Your task to perform on an android device: Search for pizza restaurants on Maps Image 0: 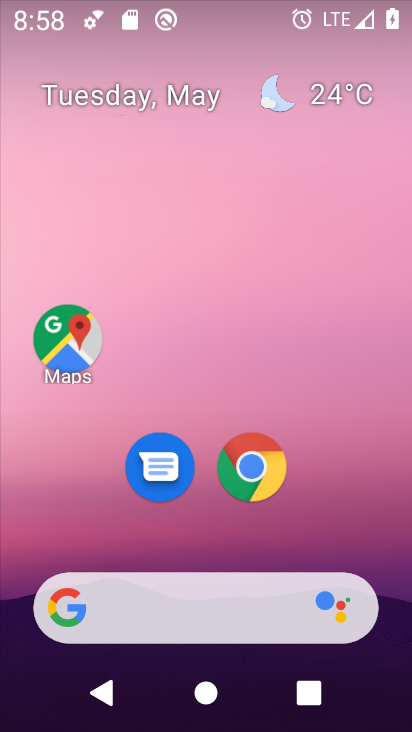
Step 0: click (410, 423)
Your task to perform on an android device: Search for pizza restaurants on Maps Image 1: 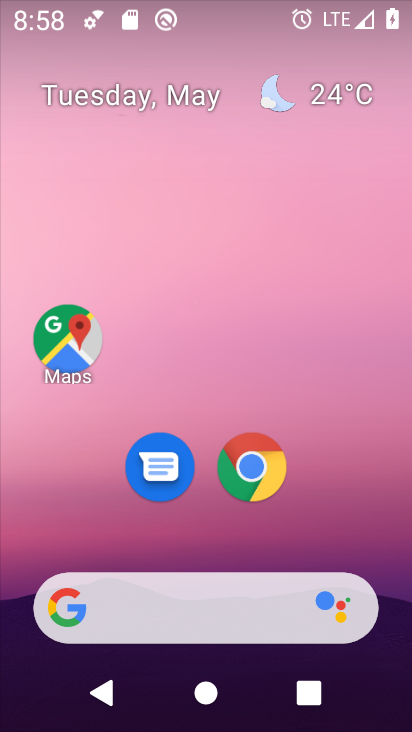
Step 1: click (46, 329)
Your task to perform on an android device: Search for pizza restaurants on Maps Image 2: 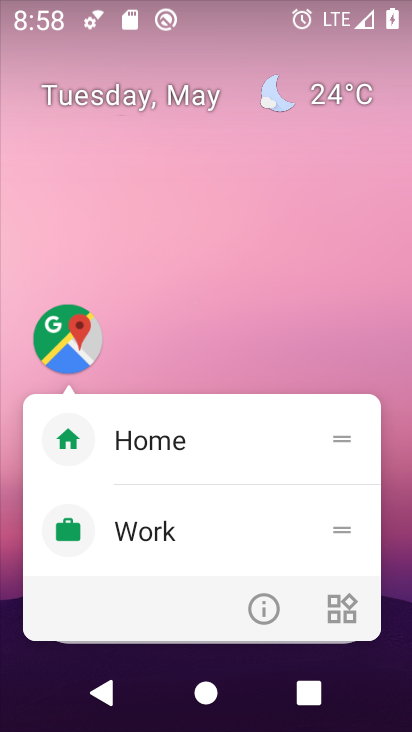
Step 2: click (68, 329)
Your task to perform on an android device: Search for pizza restaurants on Maps Image 3: 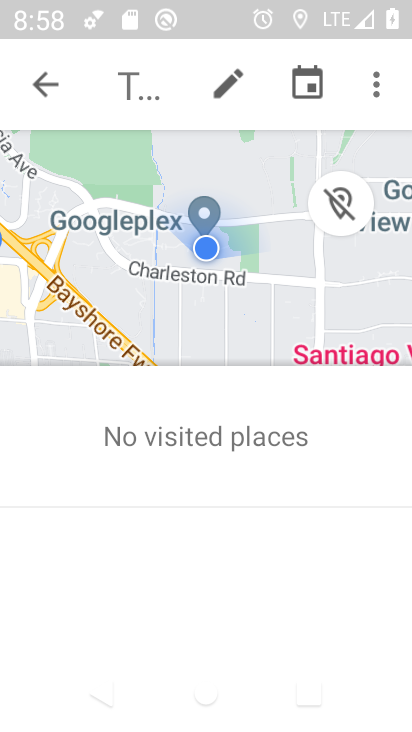
Step 3: click (32, 75)
Your task to perform on an android device: Search for pizza restaurants on Maps Image 4: 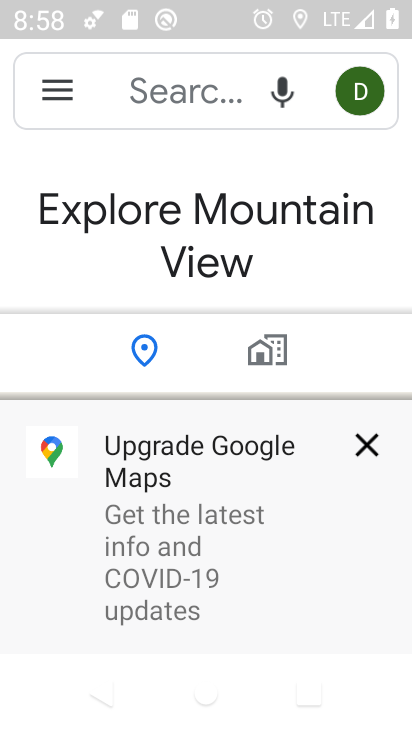
Step 4: click (108, 88)
Your task to perform on an android device: Search for pizza restaurants on Maps Image 5: 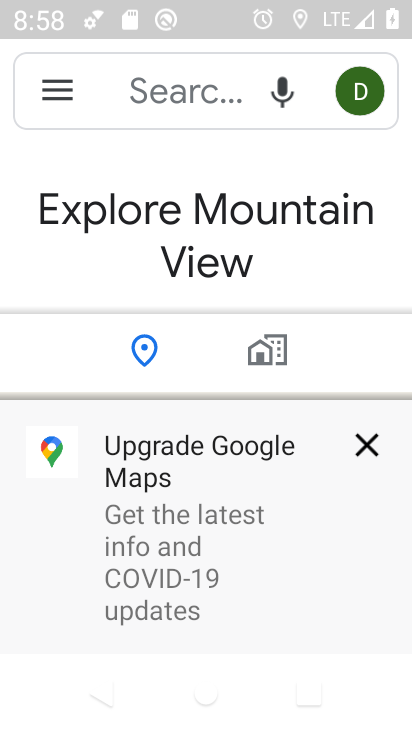
Step 5: click (362, 445)
Your task to perform on an android device: Search for pizza restaurants on Maps Image 6: 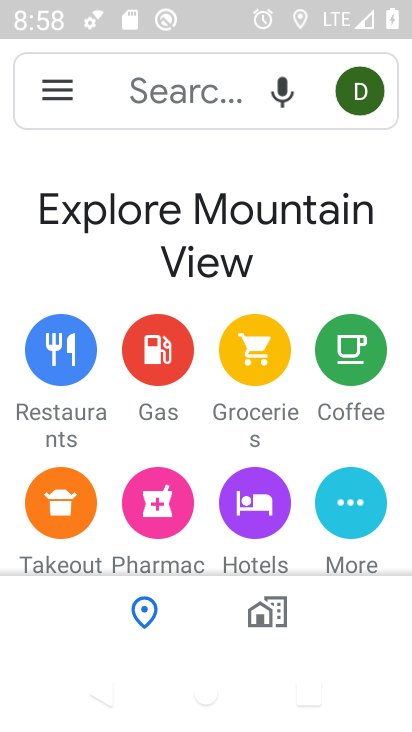
Step 6: click (129, 86)
Your task to perform on an android device: Search for pizza restaurants on Maps Image 7: 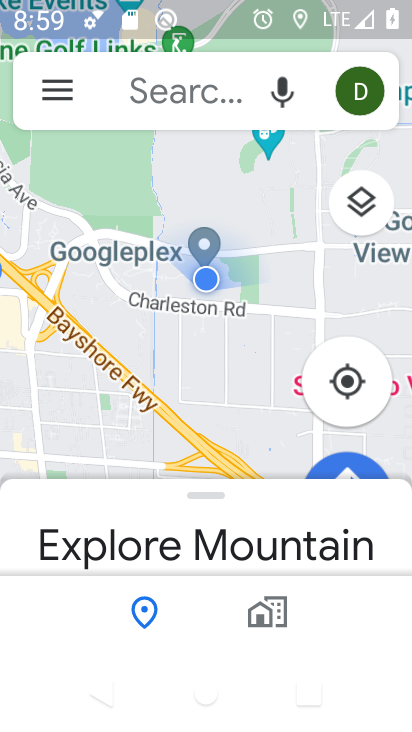
Step 7: click (111, 89)
Your task to perform on an android device: Search for pizza restaurants on Maps Image 8: 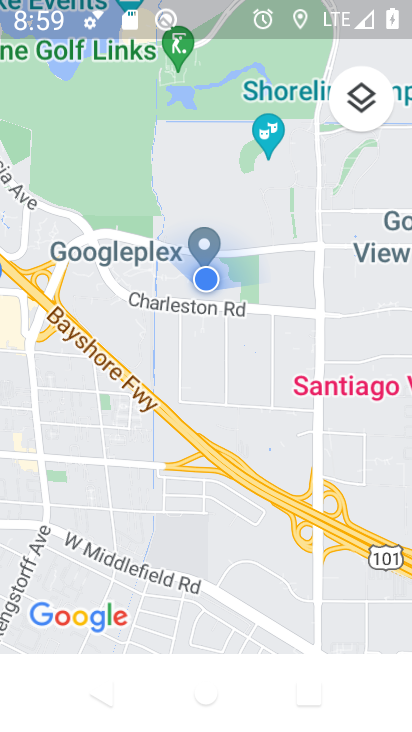
Step 8: press back button
Your task to perform on an android device: Search for pizza restaurants on Maps Image 9: 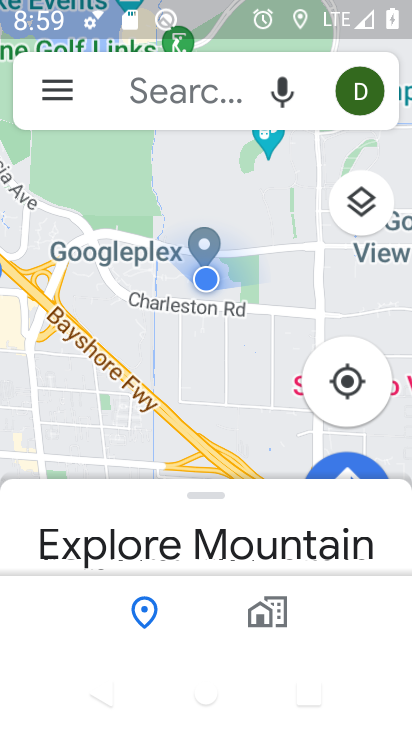
Step 9: click (142, 85)
Your task to perform on an android device: Search for pizza restaurants on Maps Image 10: 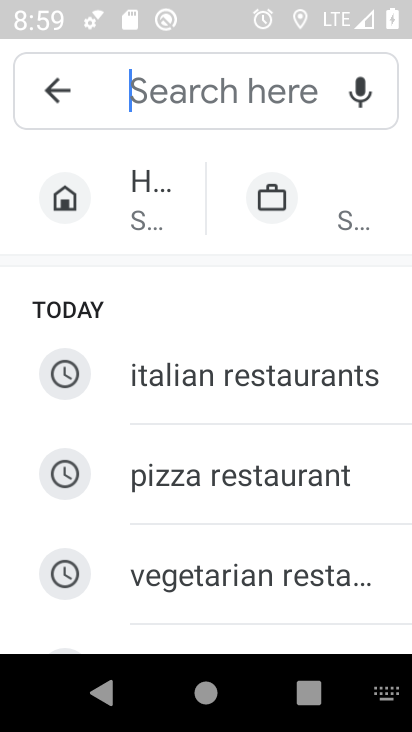
Step 10: type "pizza restaurants"
Your task to perform on an android device: Search for pizza restaurants on Maps Image 11: 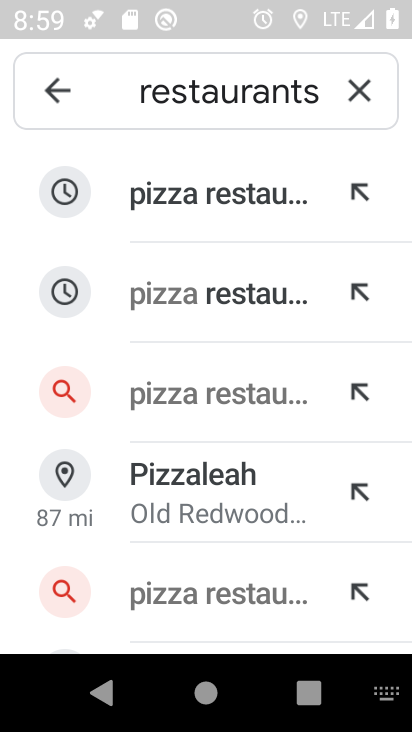
Step 11: click (200, 384)
Your task to perform on an android device: Search for pizza restaurants on Maps Image 12: 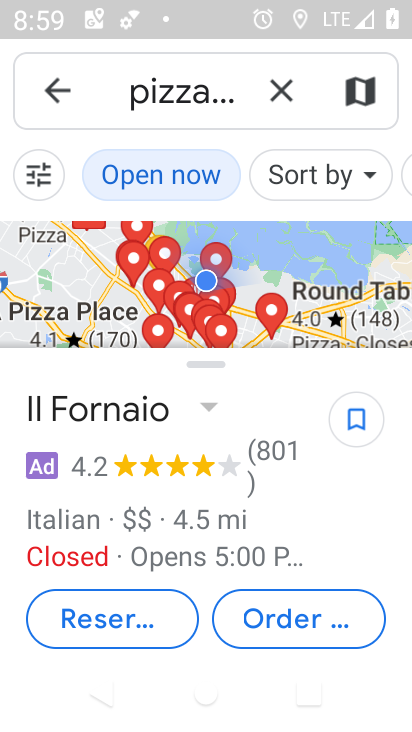
Step 12: task complete